Your task to perform on an android device: View the shopping cart on bestbuy.com. Image 0: 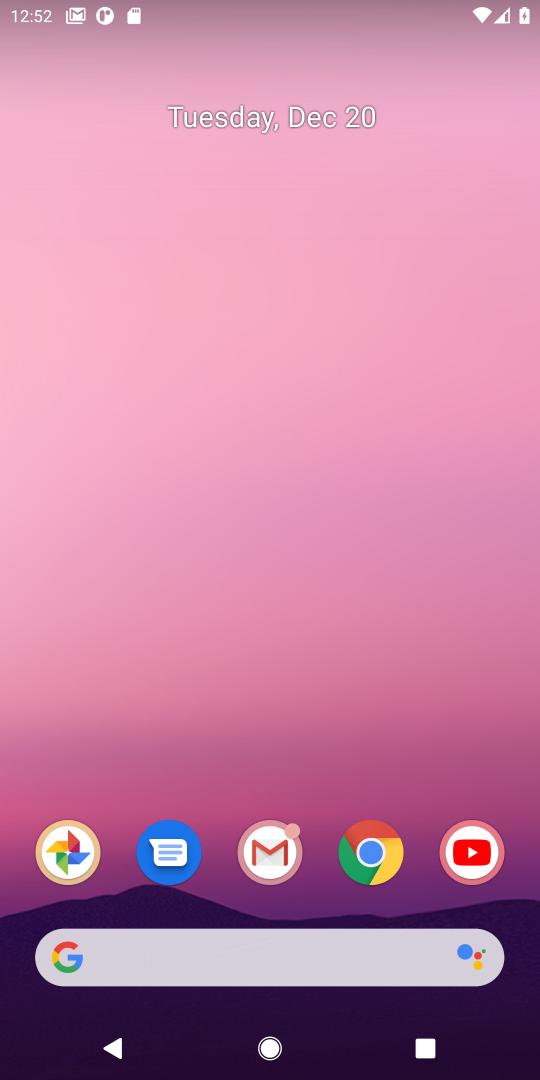
Step 0: click (375, 865)
Your task to perform on an android device: View the shopping cart on bestbuy.com. Image 1: 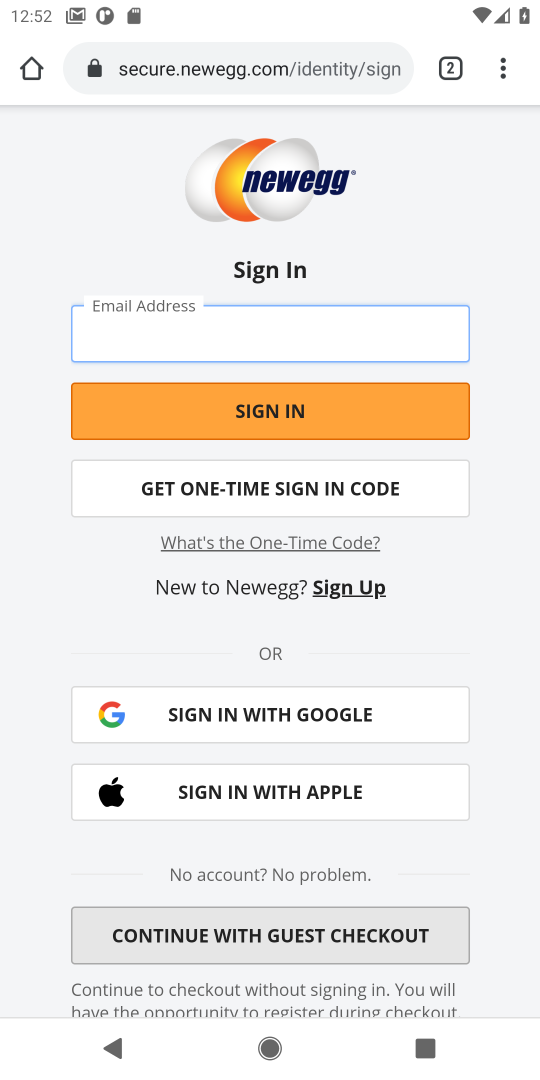
Step 1: click (246, 71)
Your task to perform on an android device: View the shopping cart on bestbuy.com. Image 2: 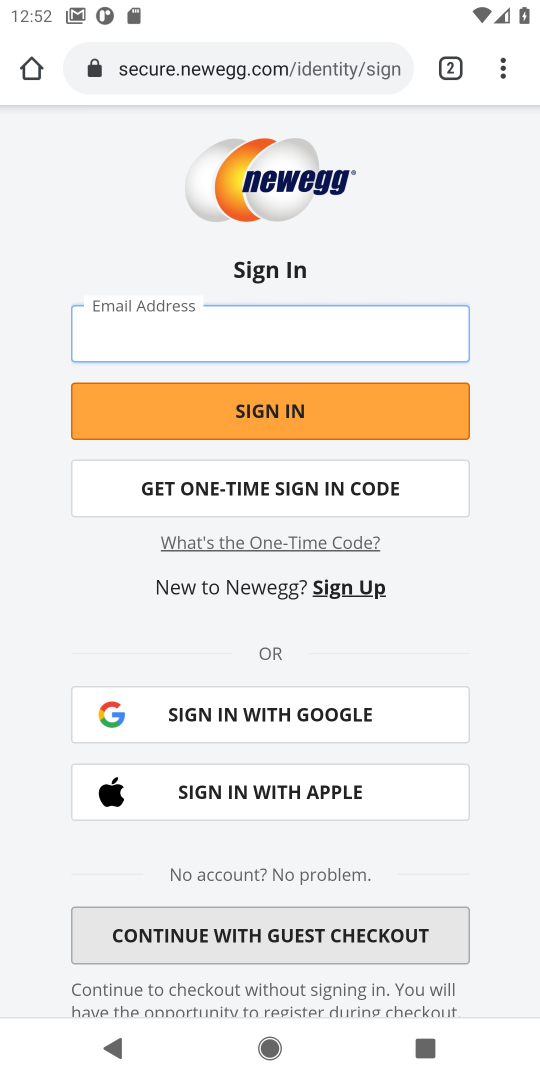
Step 2: click (246, 71)
Your task to perform on an android device: View the shopping cart on bestbuy.com. Image 3: 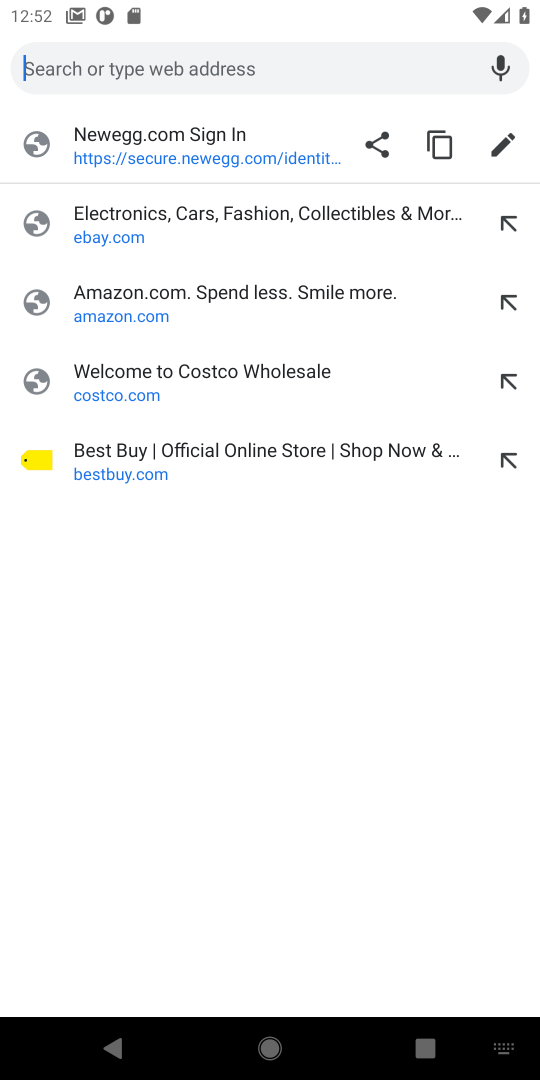
Step 3: click (98, 457)
Your task to perform on an android device: View the shopping cart on bestbuy.com. Image 4: 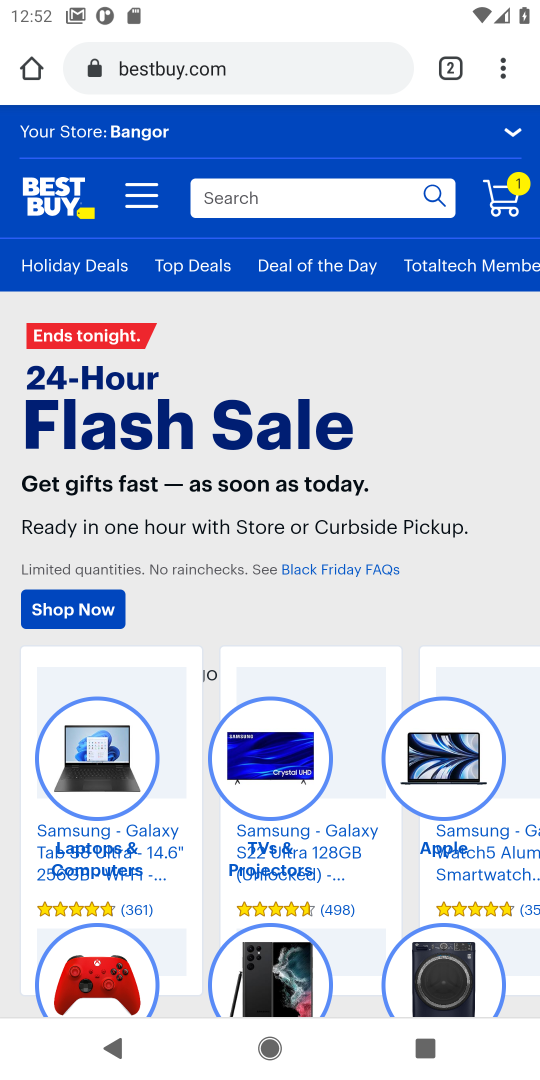
Step 4: click (501, 206)
Your task to perform on an android device: View the shopping cart on bestbuy.com. Image 5: 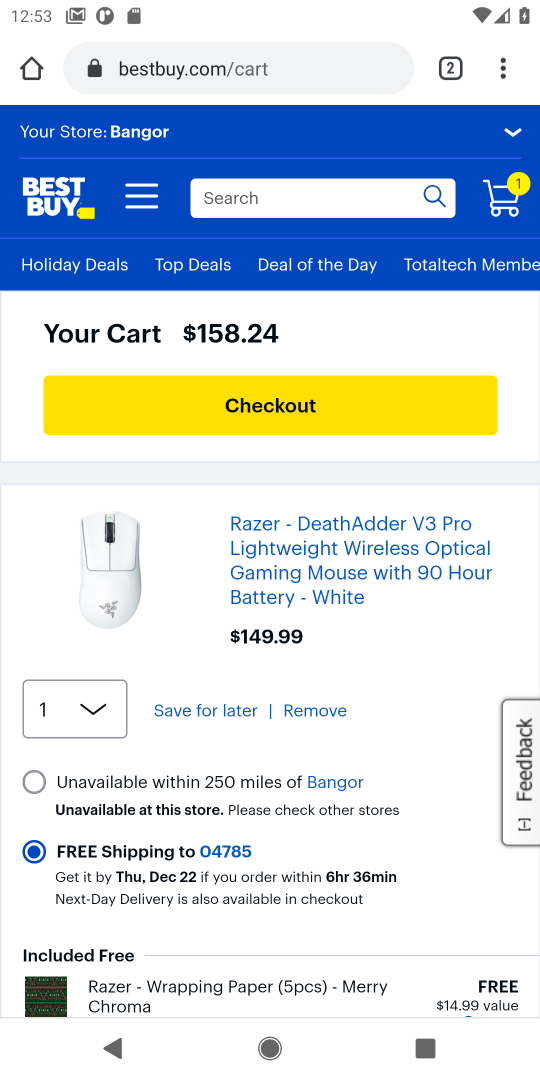
Step 5: task complete